Your task to perform on an android device: turn off smart reply in the gmail app Image 0: 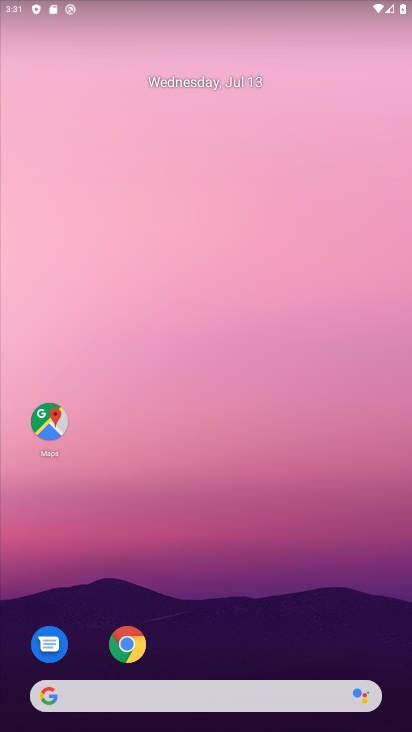
Step 0: drag from (225, 651) to (331, 121)
Your task to perform on an android device: turn off smart reply in the gmail app Image 1: 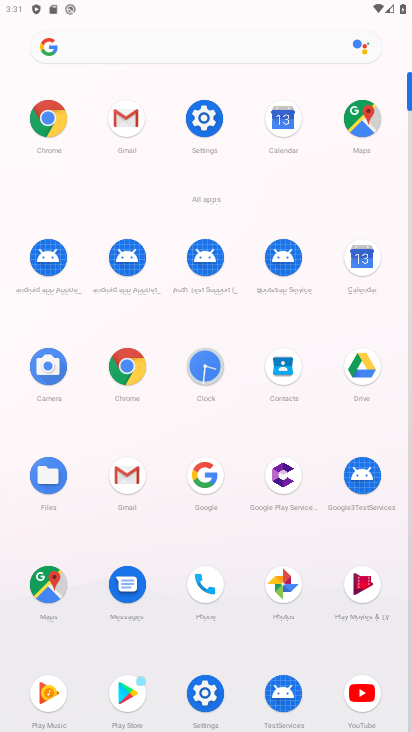
Step 1: click (120, 109)
Your task to perform on an android device: turn off smart reply in the gmail app Image 2: 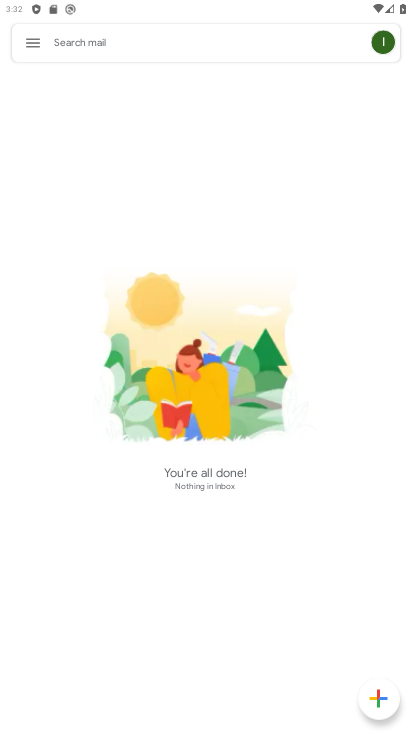
Step 2: click (32, 39)
Your task to perform on an android device: turn off smart reply in the gmail app Image 3: 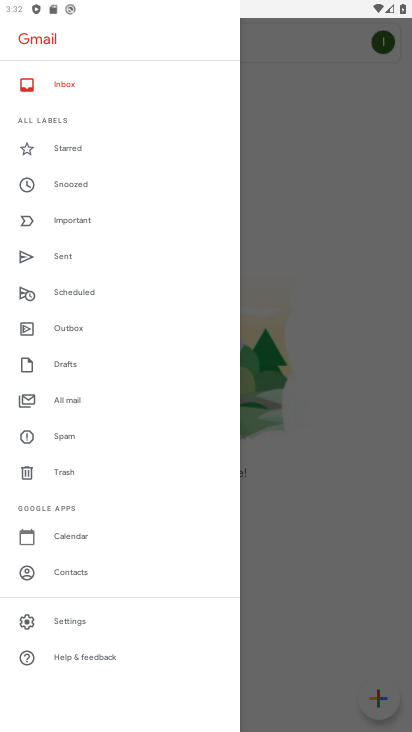
Step 3: click (67, 614)
Your task to perform on an android device: turn off smart reply in the gmail app Image 4: 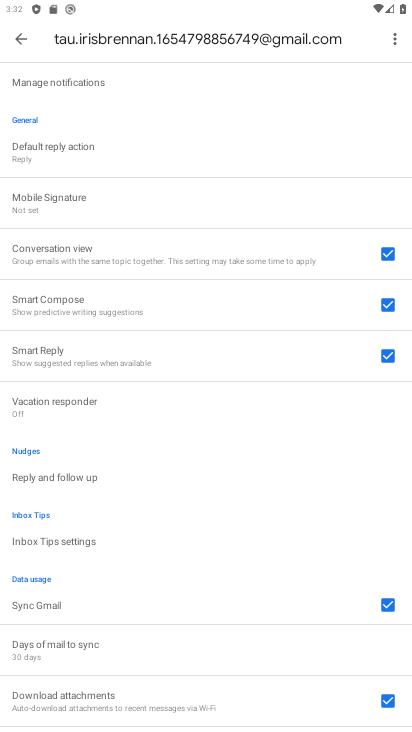
Step 4: click (388, 356)
Your task to perform on an android device: turn off smart reply in the gmail app Image 5: 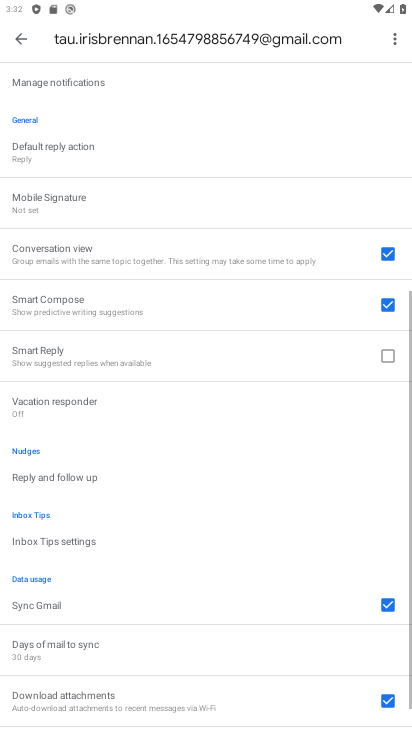
Step 5: task complete